Your task to perform on an android device: Open privacy settings Image 0: 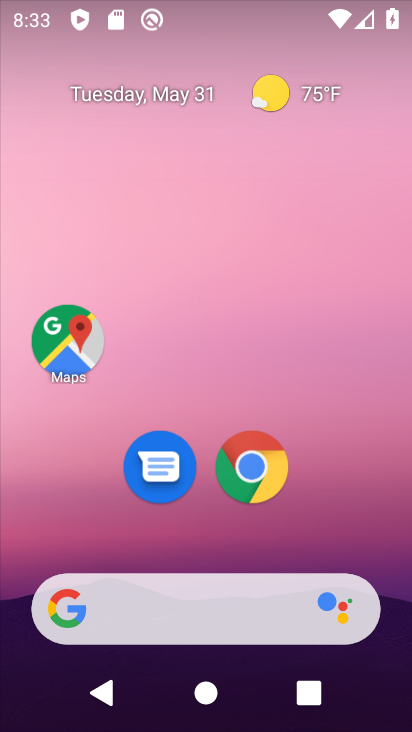
Step 0: drag from (191, 523) to (250, 168)
Your task to perform on an android device: Open privacy settings Image 1: 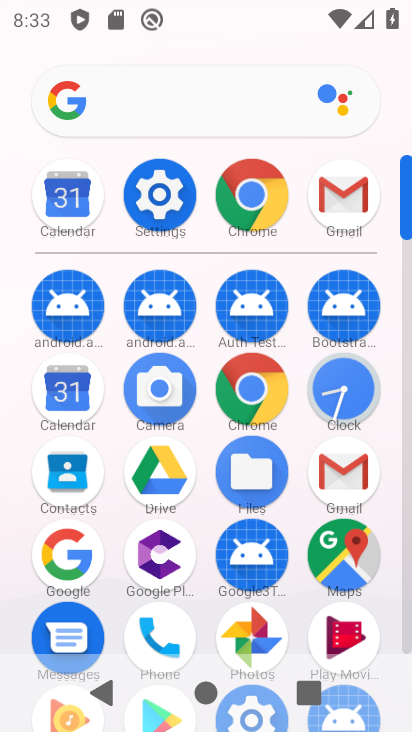
Step 1: click (160, 200)
Your task to perform on an android device: Open privacy settings Image 2: 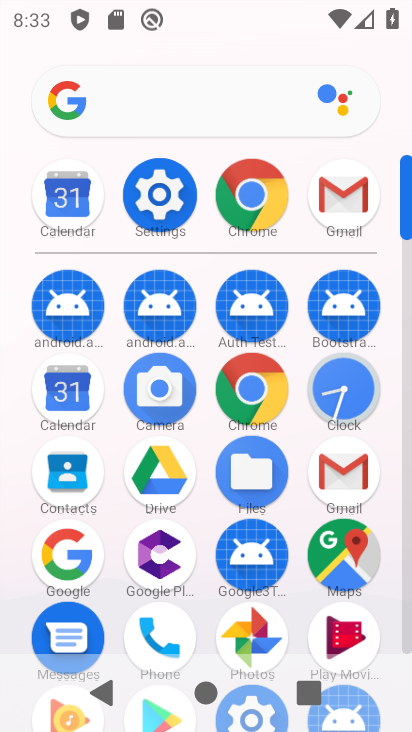
Step 2: click (160, 200)
Your task to perform on an android device: Open privacy settings Image 3: 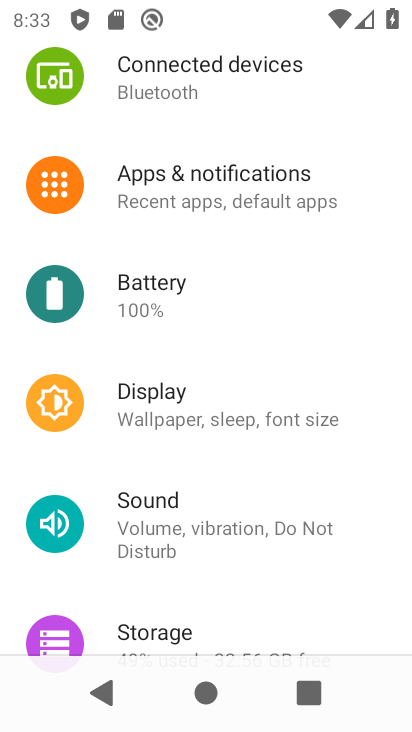
Step 3: drag from (211, 517) to (269, 173)
Your task to perform on an android device: Open privacy settings Image 4: 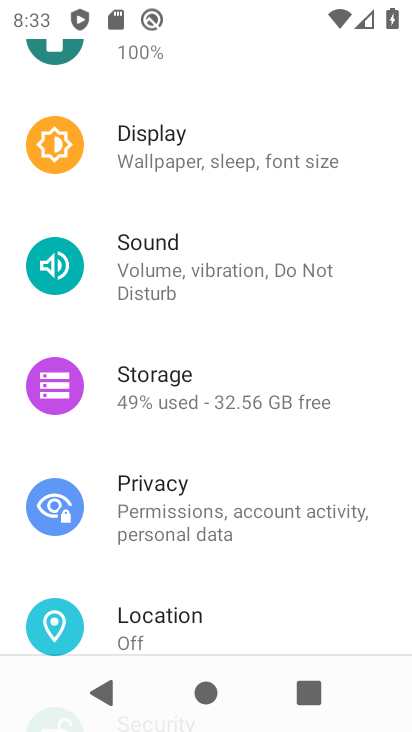
Step 4: click (190, 490)
Your task to perform on an android device: Open privacy settings Image 5: 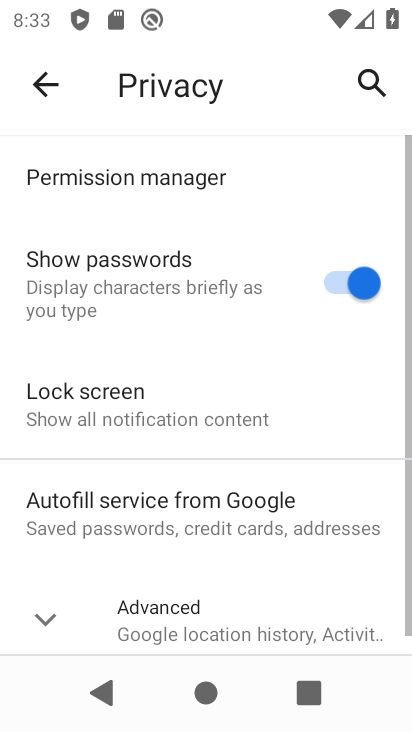
Step 5: task complete